Your task to perform on an android device: Open notification settings Image 0: 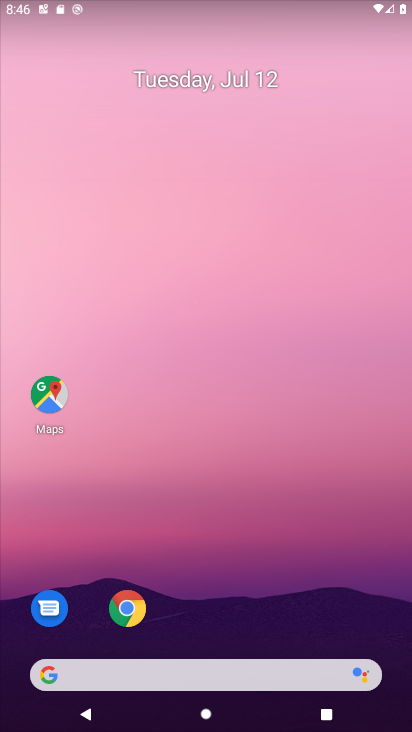
Step 0: drag from (242, 672) to (247, 142)
Your task to perform on an android device: Open notification settings Image 1: 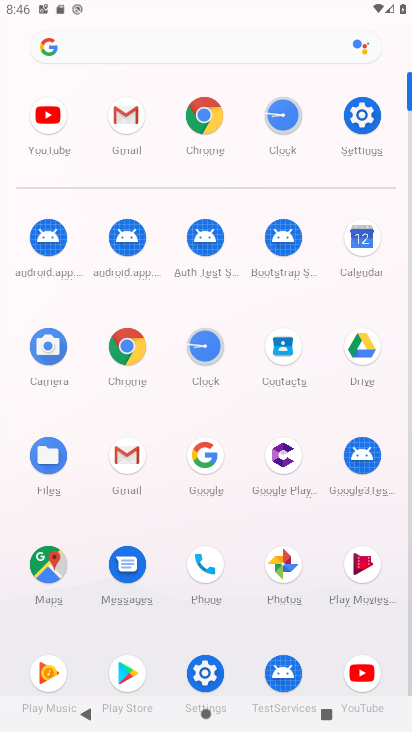
Step 1: click (364, 117)
Your task to perform on an android device: Open notification settings Image 2: 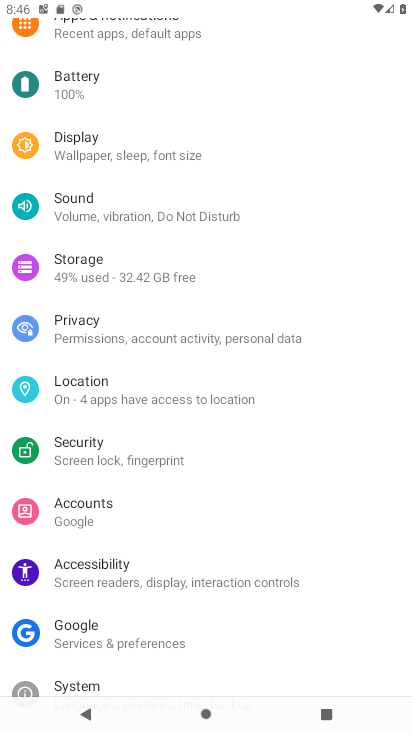
Step 2: drag from (297, 89) to (365, 513)
Your task to perform on an android device: Open notification settings Image 3: 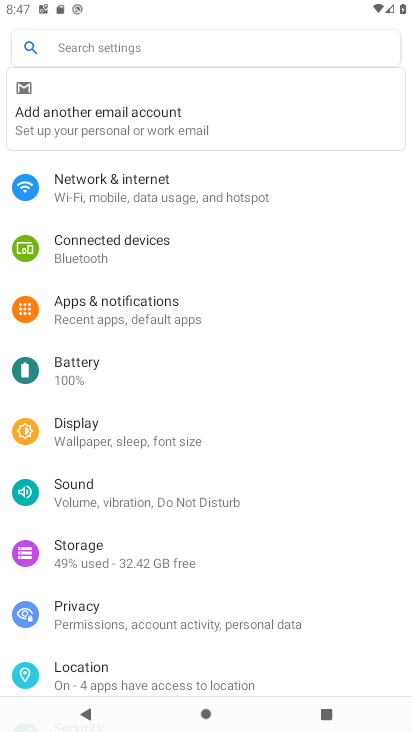
Step 3: click (152, 308)
Your task to perform on an android device: Open notification settings Image 4: 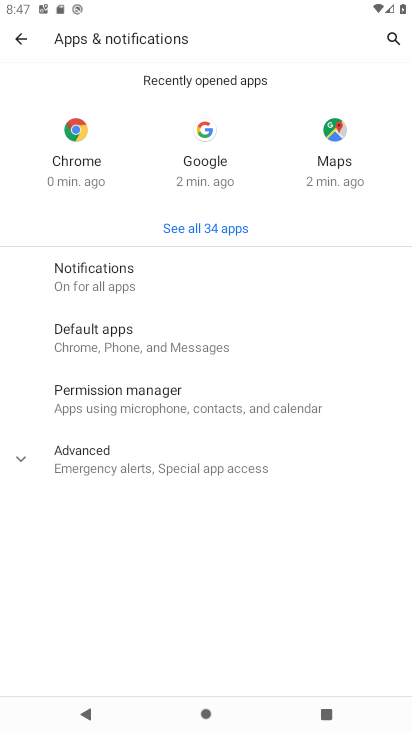
Step 4: click (118, 275)
Your task to perform on an android device: Open notification settings Image 5: 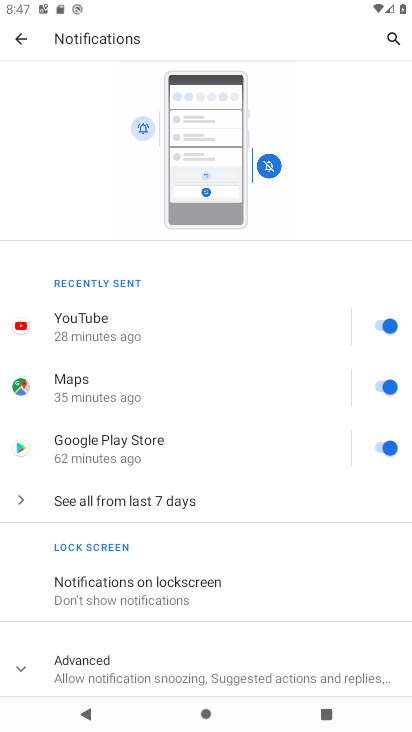
Step 5: task complete